Your task to perform on an android device: Open the map Image 0: 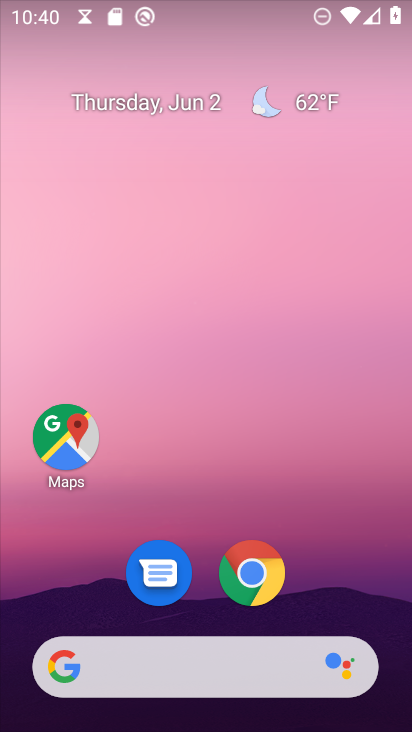
Step 0: click (67, 438)
Your task to perform on an android device: Open the map Image 1: 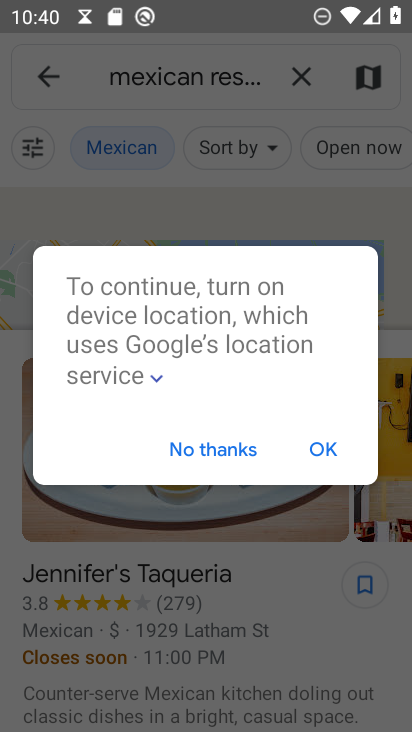
Step 1: click (235, 452)
Your task to perform on an android device: Open the map Image 2: 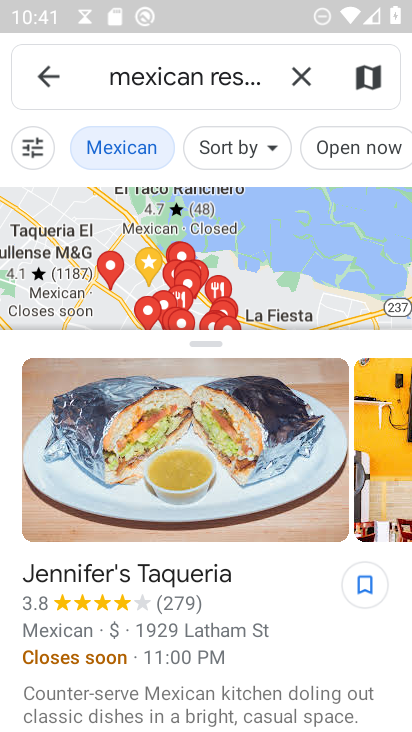
Step 2: task complete